Your task to perform on an android device: Open Yahoo.com Image 0: 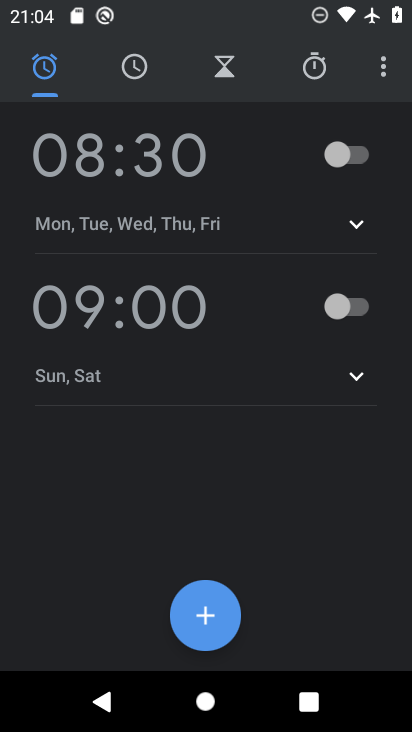
Step 0: press home button
Your task to perform on an android device: Open Yahoo.com Image 1: 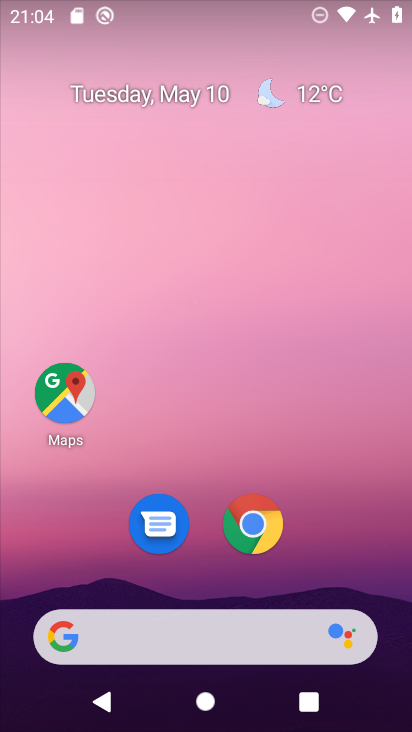
Step 1: click (208, 628)
Your task to perform on an android device: Open Yahoo.com Image 2: 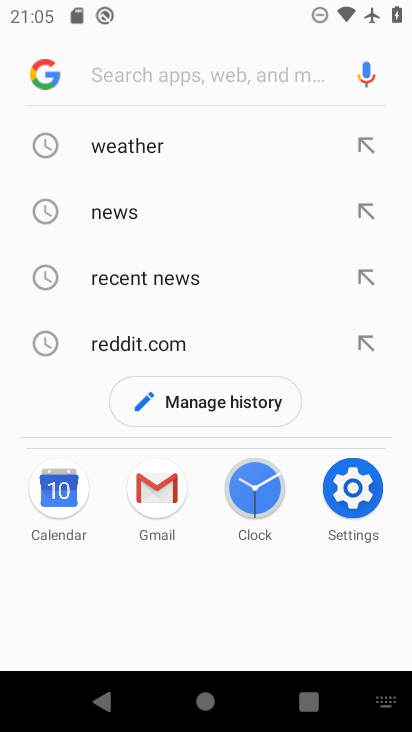
Step 2: type "yahoo.com"
Your task to perform on an android device: Open Yahoo.com Image 3: 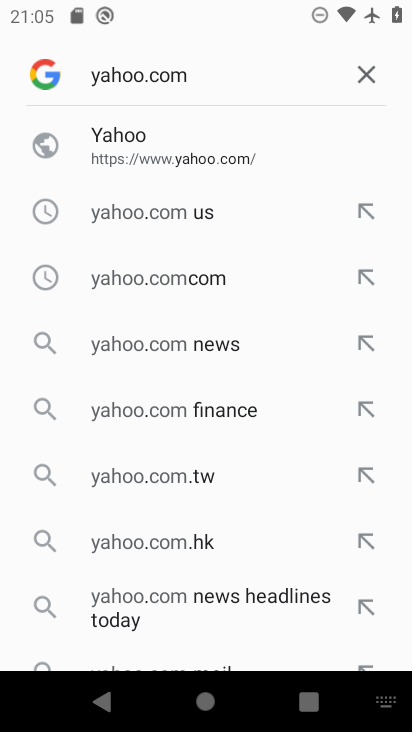
Step 3: click (106, 136)
Your task to perform on an android device: Open Yahoo.com Image 4: 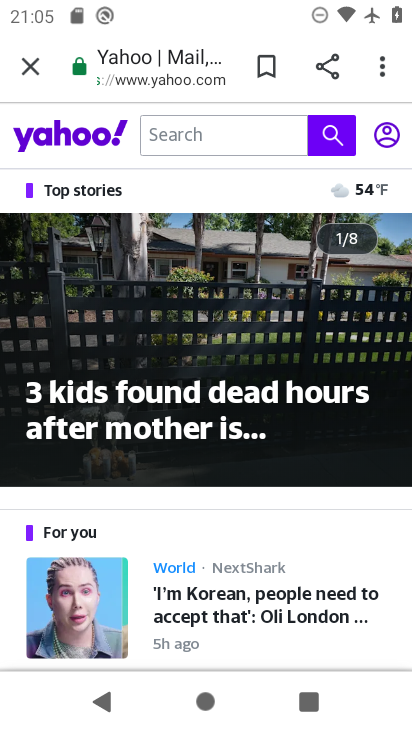
Step 4: task complete